Your task to perform on an android device: Open Yahoo.com Image 0: 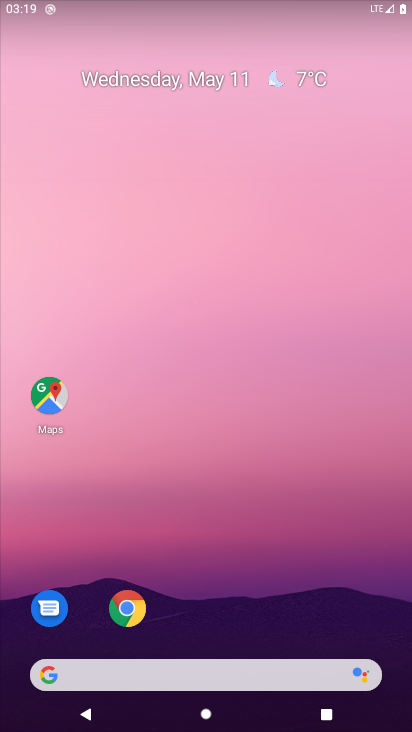
Step 0: click (235, 70)
Your task to perform on an android device: Open Yahoo.com Image 1: 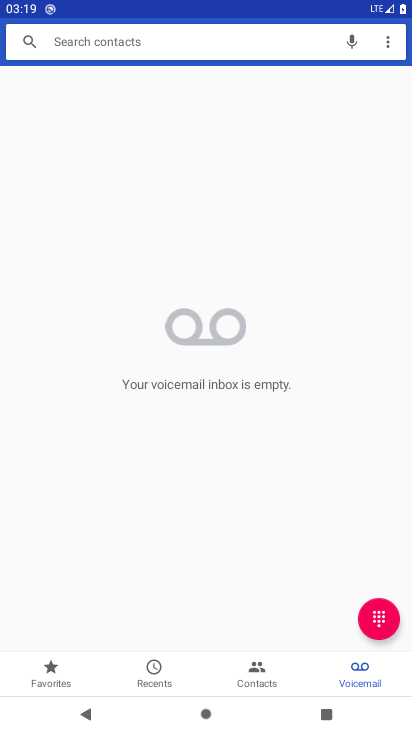
Step 1: press home button
Your task to perform on an android device: Open Yahoo.com Image 2: 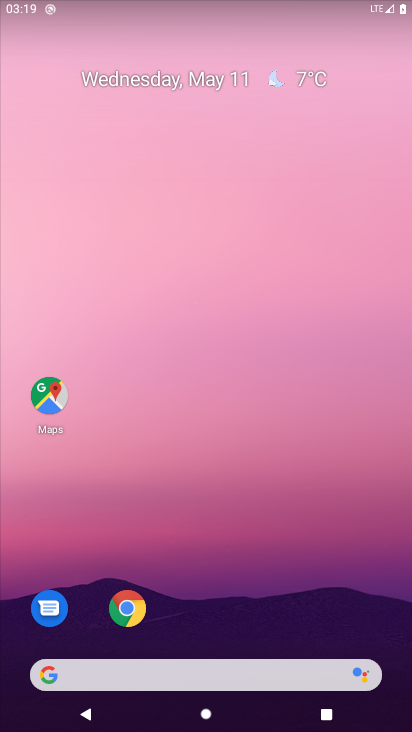
Step 2: drag from (213, 628) to (237, 108)
Your task to perform on an android device: Open Yahoo.com Image 3: 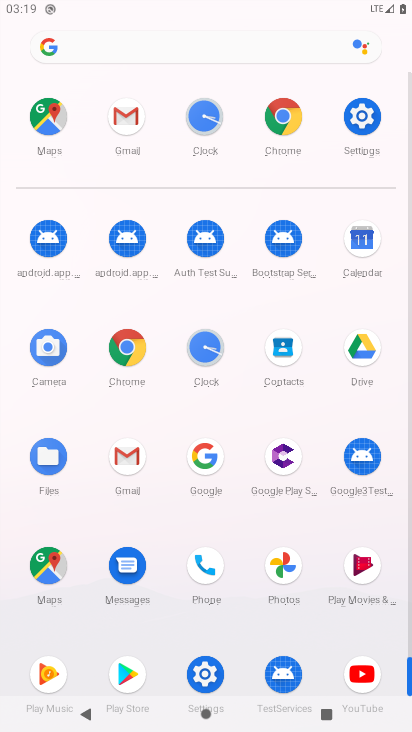
Step 3: click (125, 342)
Your task to perform on an android device: Open Yahoo.com Image 4: 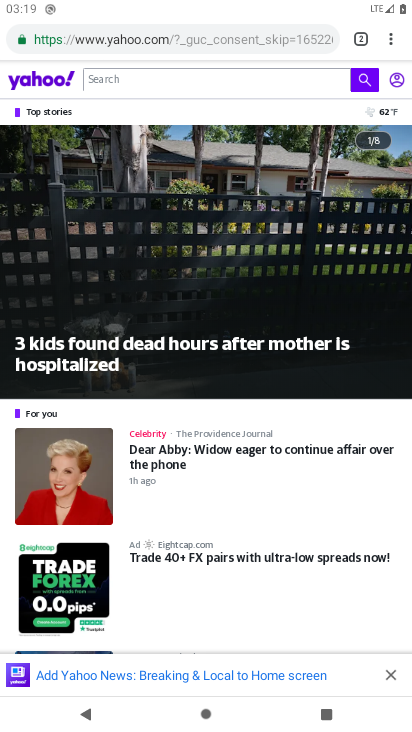
Step 4: task complete